Your task to perform on an android device: Search for "acer nitro" on costco.com, select the first entry, add it to the cart, then select checkout. Image 0: 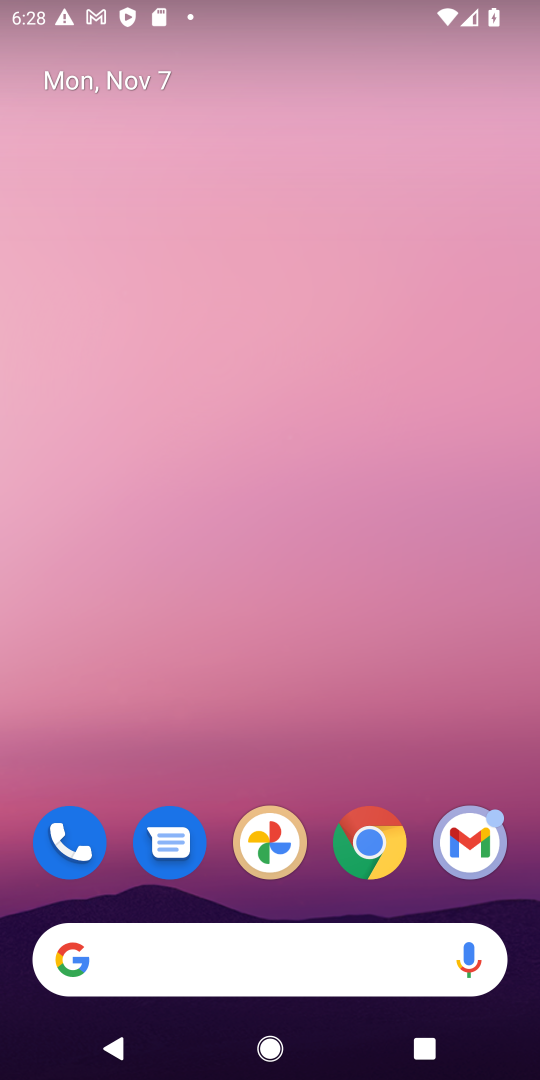
Step 0: drag from (93, 928) to (204, 197)
Your task to perform on an android device: Search for "acer nitro" on costco.com, select the first entry, add it to the cart, then select checkout. Image 1: 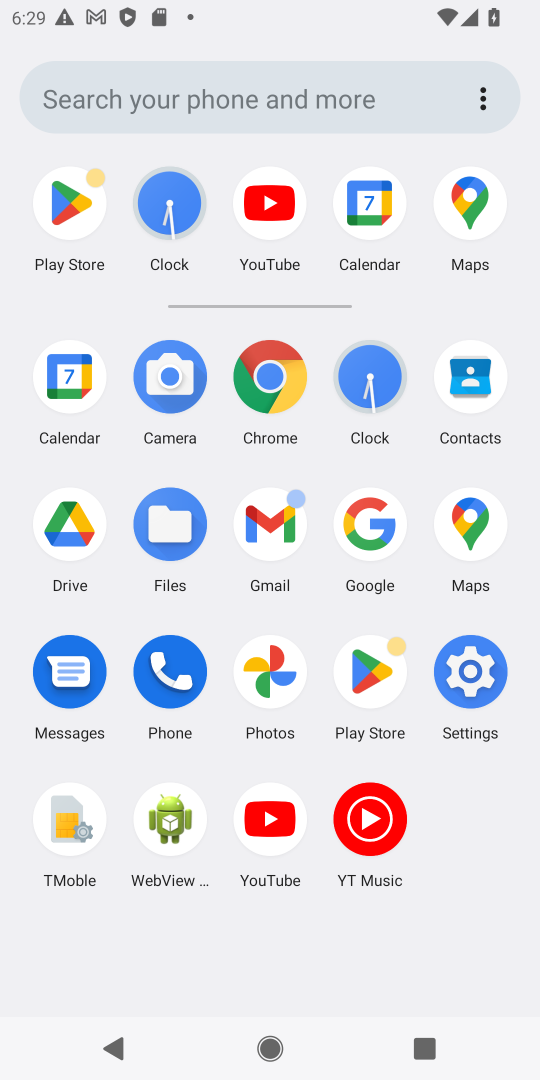
Step 1: click (287, 375)
Your task to perform on an android device: Search for "acer nitro" on costco.com, select the first entry, add it to the cart, then select checkout. Image 2: 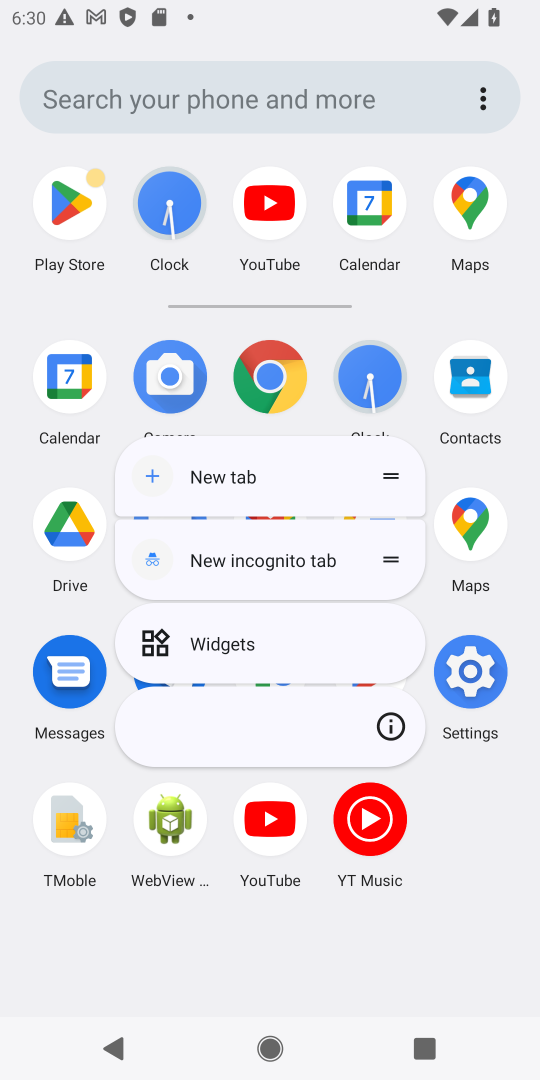
Step 2: click (266, 363)
Your task to perform on an android device: Search for "acer nitro" on costco.com, select the first entry, add it to the cart, then select checkout. Image 3: 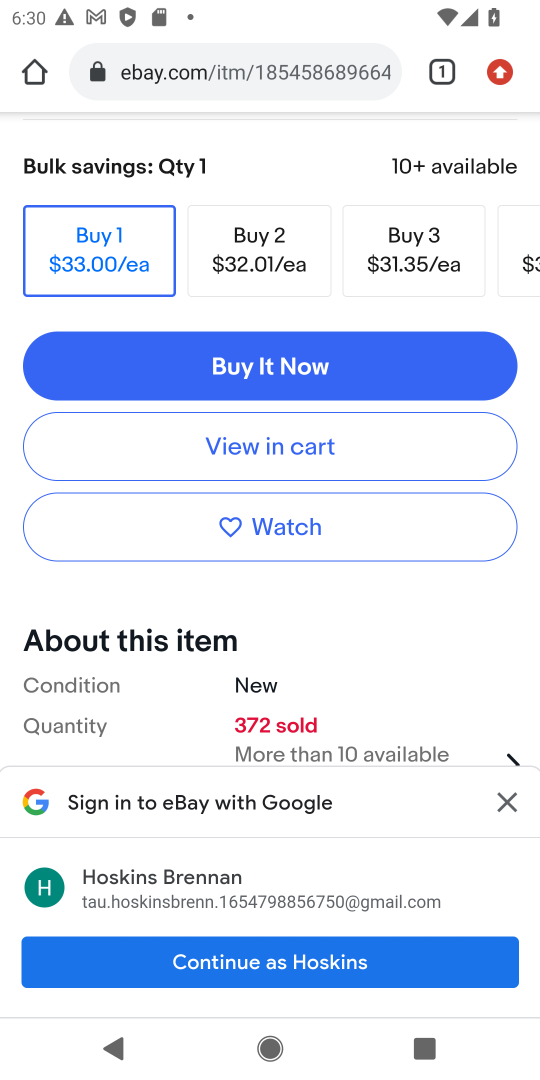
Step 3: click (267, 92)
Your task to perform on an android device: Search for "acer nitro" on costco.com, select the first entry, add it to the cart, then select checkout. Image 4: 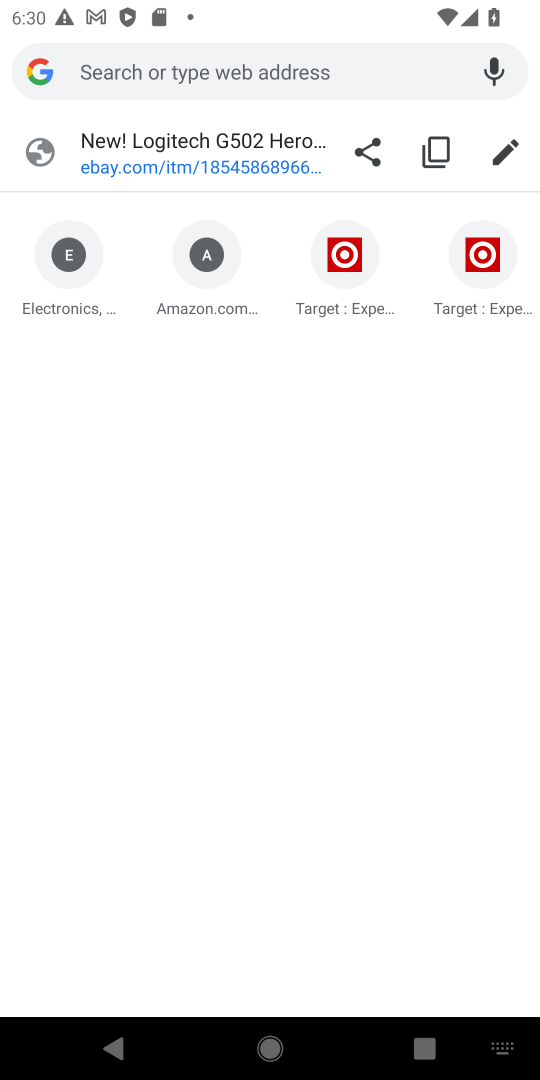
Step 4: type "costco.com"
Your task to perform on an android device: Search for "acer nitro" on costco.com, select the first entry, add it to the cart, then select checkout. Image 5: 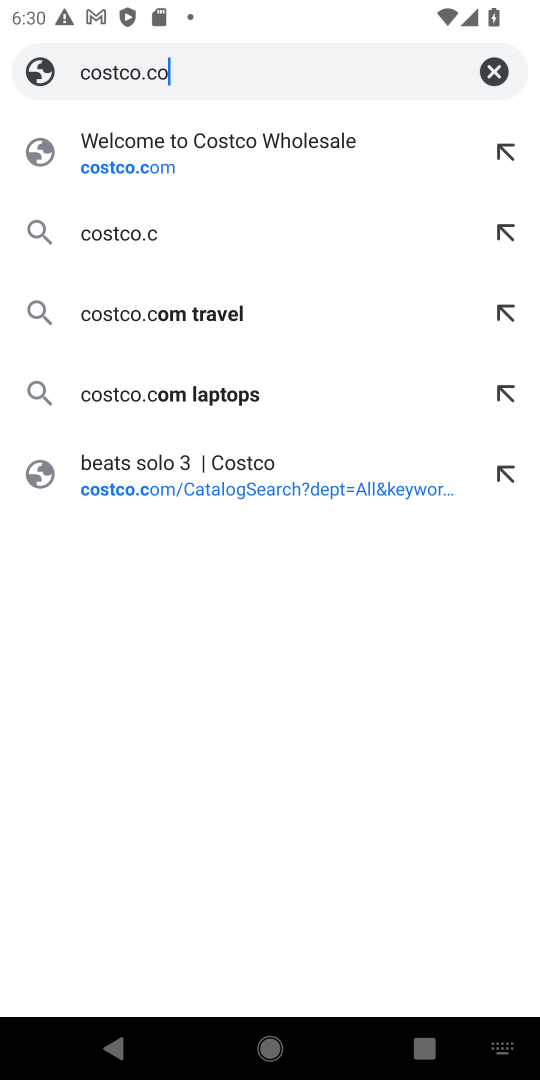
Step 5: press enter
Your task to perform on an android device: Search for "acer nitro" on costco.com, select the first entry, add it to the cart, then select checkout. Image 6: 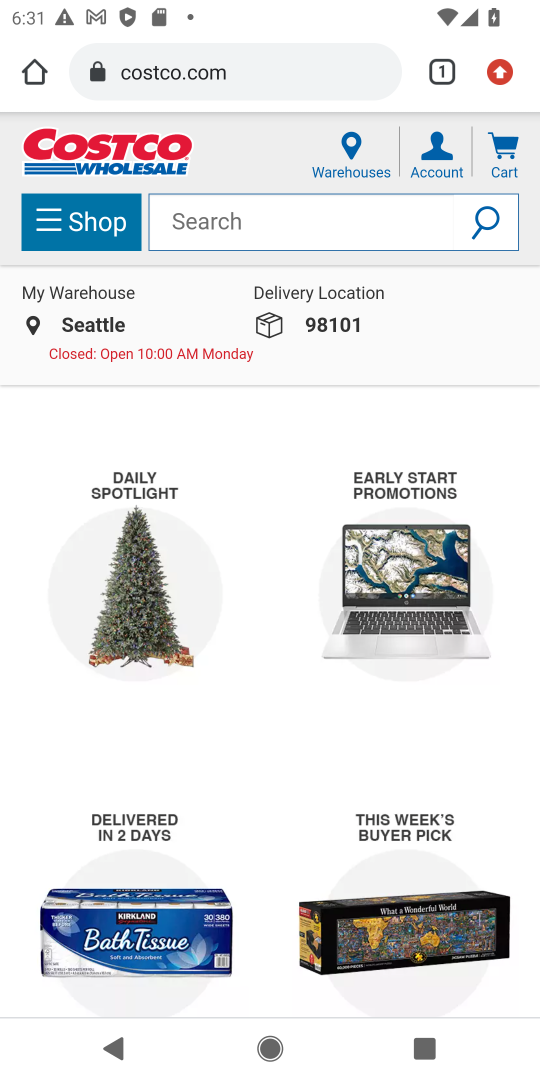
Step 6: click (283, 221)
Your task to perform on an android device: Search for "acer nitro" on costco.com, select the first entry, add it to the cart, then select checkout. Image 7: 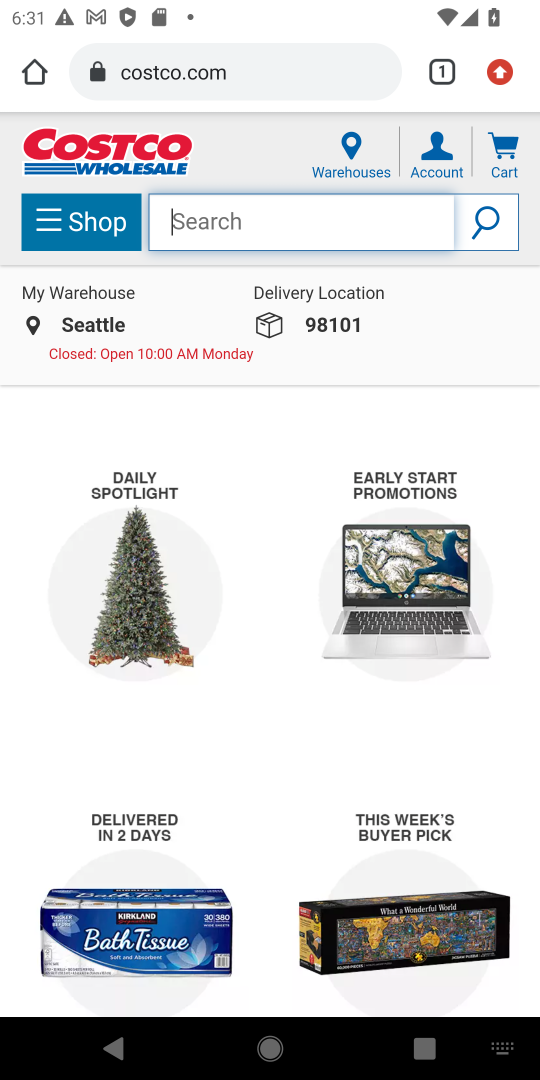
Step 7: type "acer nitro"
Your task to perform on an android device: Search for "acer nitro" on costco.com, select the first entry, add it to the cart, then select checkout. Image 8: 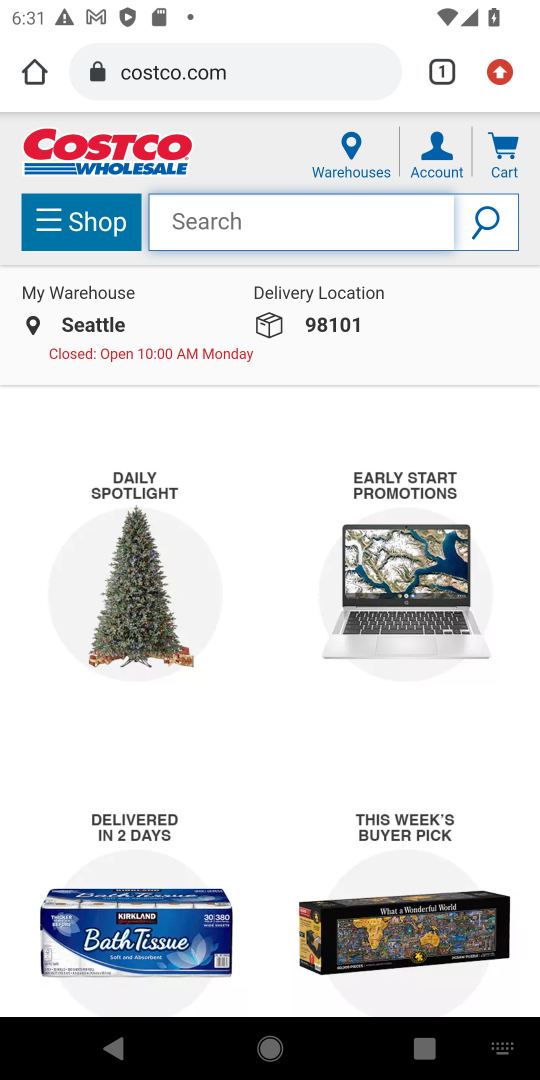
Step 8: press enter
Your task to perform on an android device: Search for "acer nitro" on costco.com, select the first entry, add it to the cart, then select checkout. Image 9: 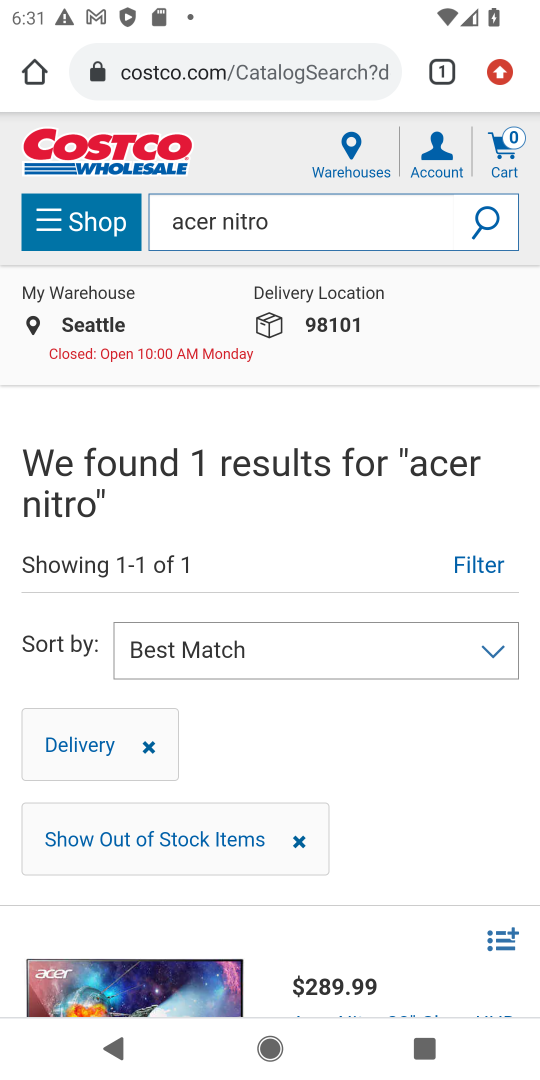
Step 9: drag from (336, 909) to (449, 520)
Your task to perform on an android device: Search for "acer nitro" on costco.com, select the first entry, add it to the cart, then select checkout. Image 10: 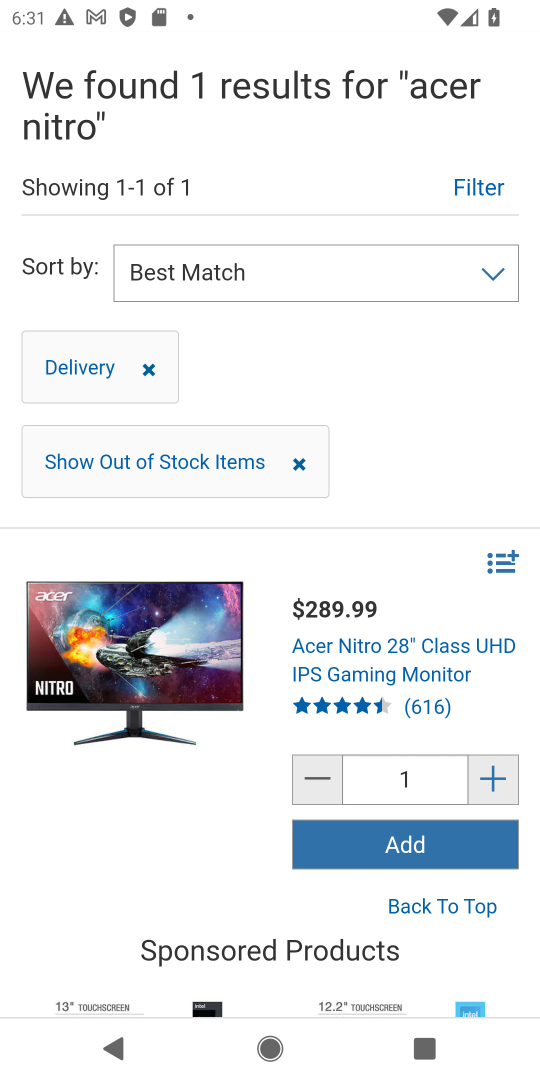
Step 10: click (366, 849)
Your task to perform on an android device: Search for "acer nitro" on costco.com, select the first entry, add it to the cart, then select checkout. Image 11: 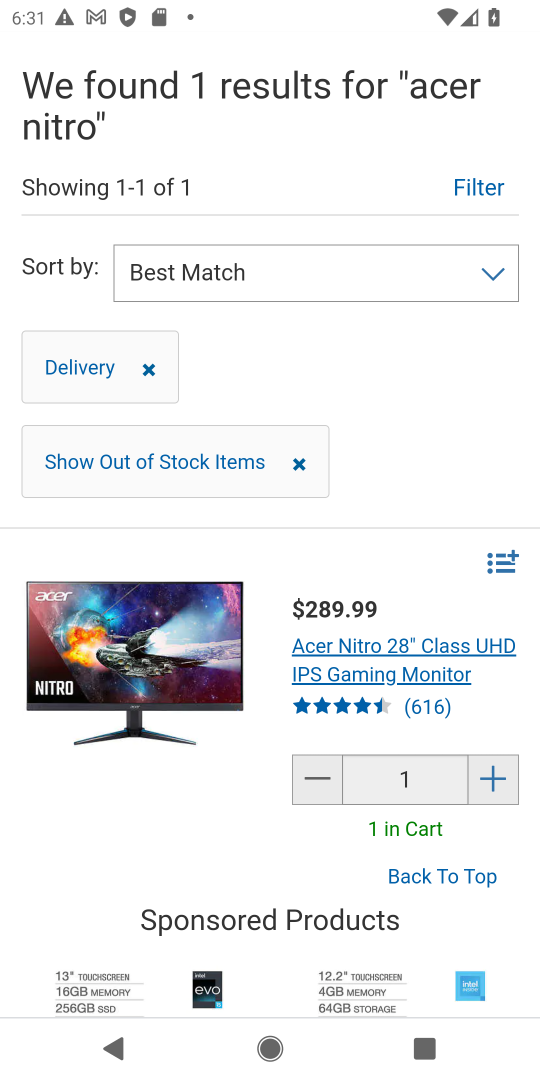
Step 11: drag from (196, 871) to (330, 549)
Your task to perform on an android device: Search for "acer nitro" on costco.com, select the first entry, add it to the cart, then select checkout. Image 12: 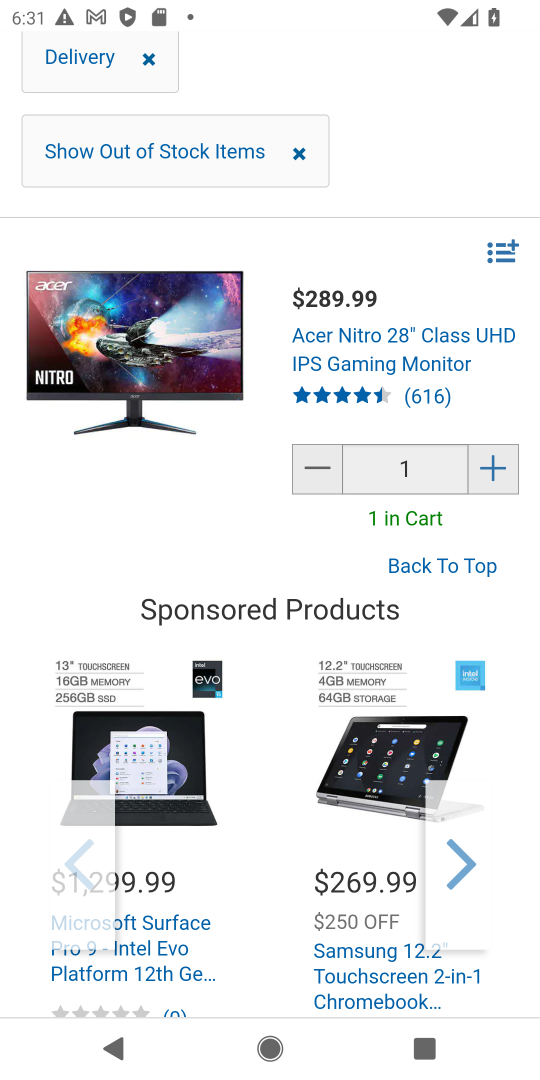
Step 12: drag from (308, 235) to (288, 728)
Your task to perform on an android device: Search for "acer nitro" on costco.com, select the first entry, add it to the cart, then select checkout. Image 13: 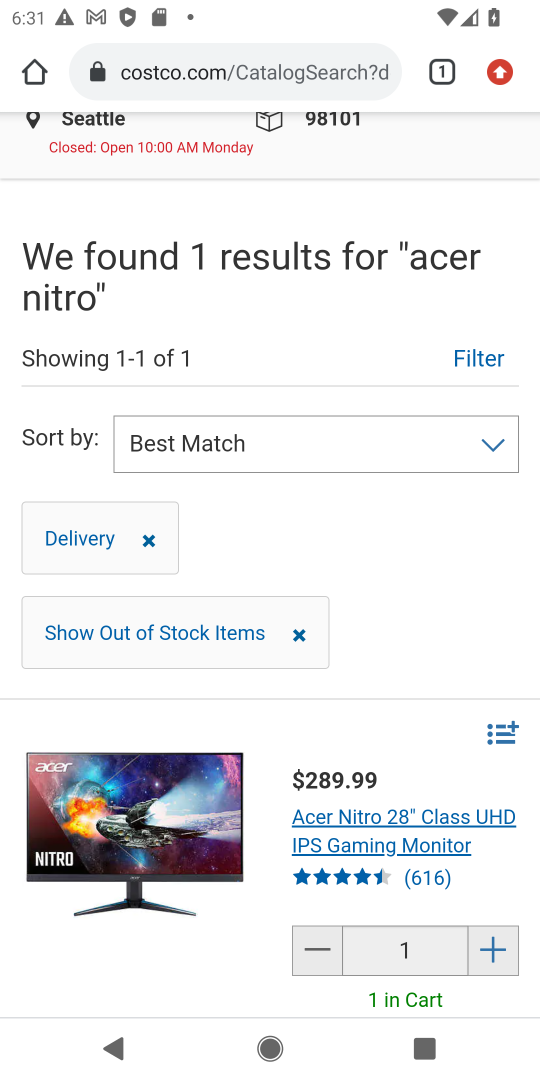
Step 13: drag from (382, 467) to (330, 725)
Your task to perform on an android device: Search for "acer nitro" on costco.com, select the first entry, add it to the cart, then select checkout. Image 14: 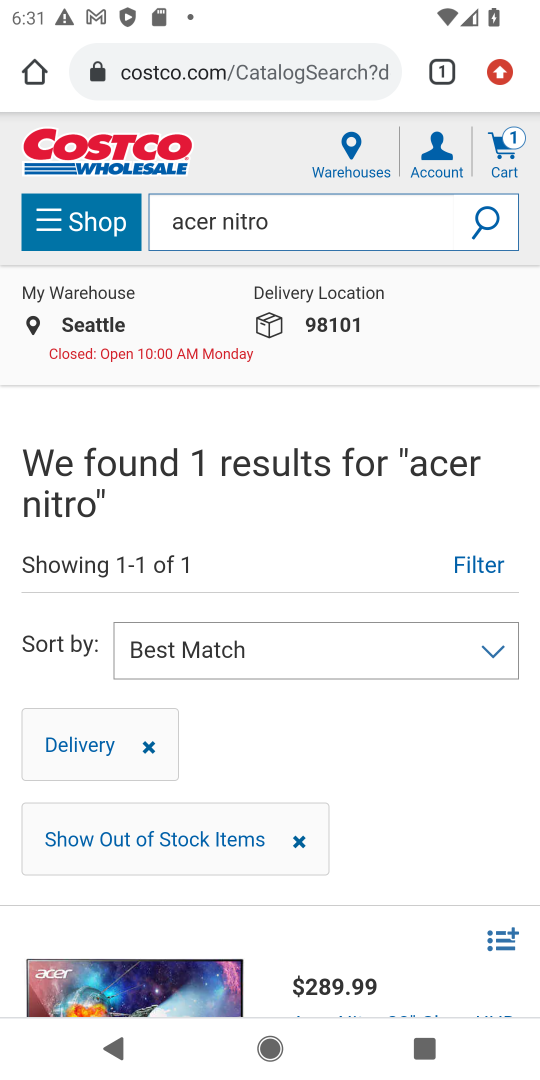
Step 14: click (506, 151)
Your task to perform on an android device: Search for "acer nitro" on costco.com, select the first entry, add it to the cart, then select checkout. Image 15: 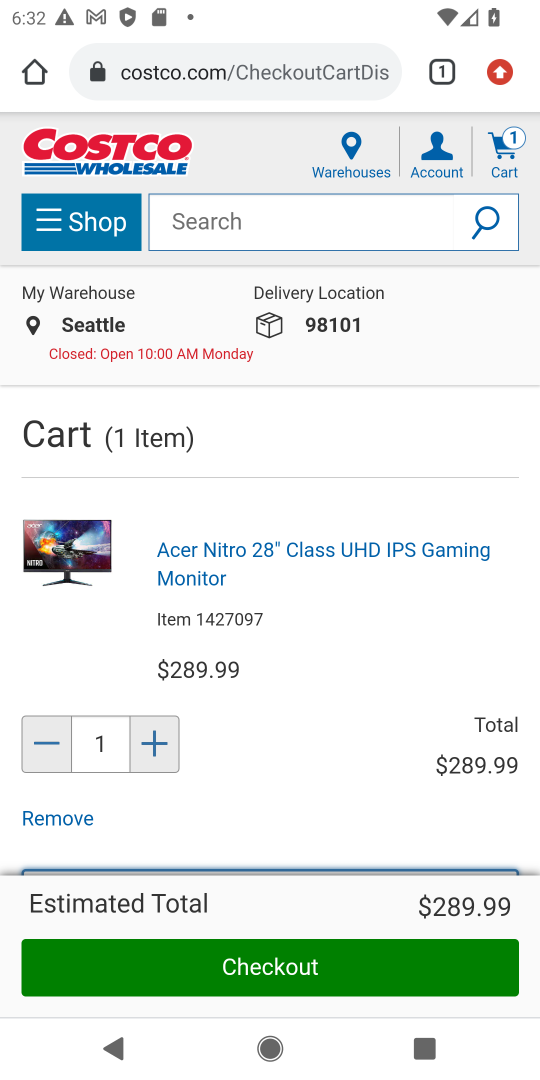
Step 15: click (210, 974)
Your task to perform on an android device: Search for "acer nitro" on costco.com, select the first entry, add it to the cart, then select checkout. Image 16: 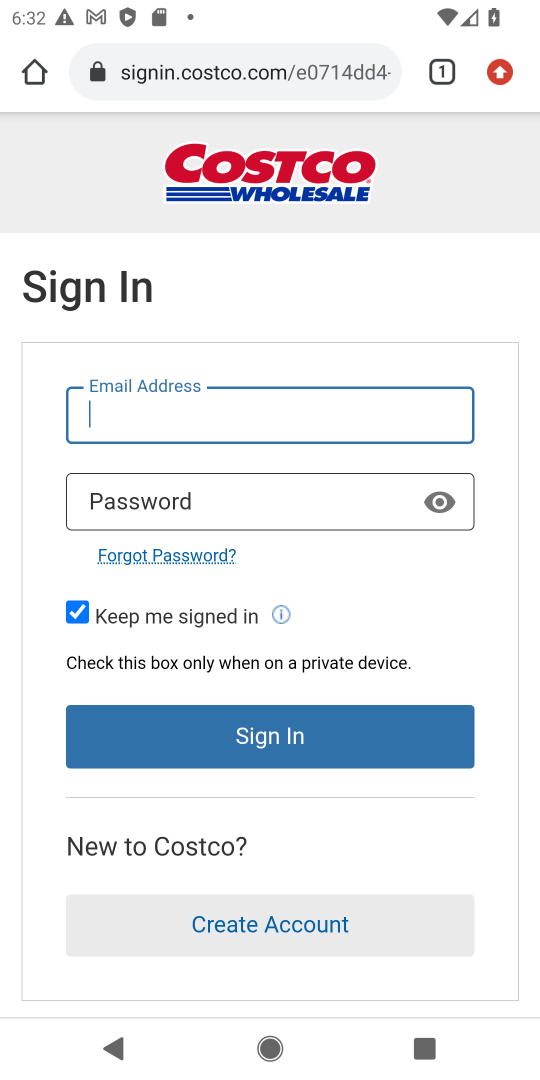
Step 16: task complete